Your task to perform on an android device: What's the weather going to be tomorrow? Image 0: 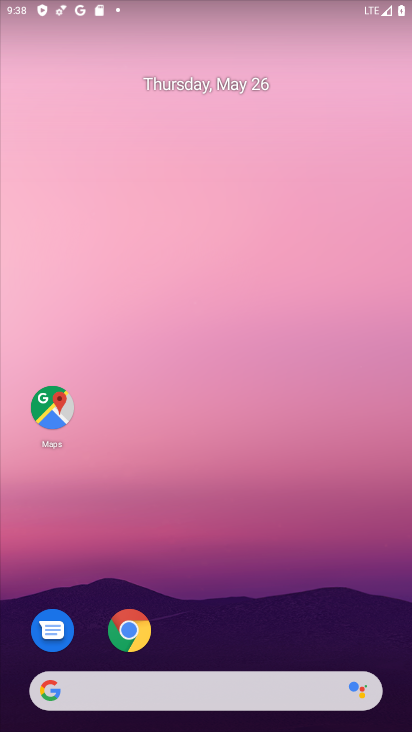
Step 0: click (221, 677)
Your task to perform on an android device: What's the weather going to be tomorrow? Image 1: 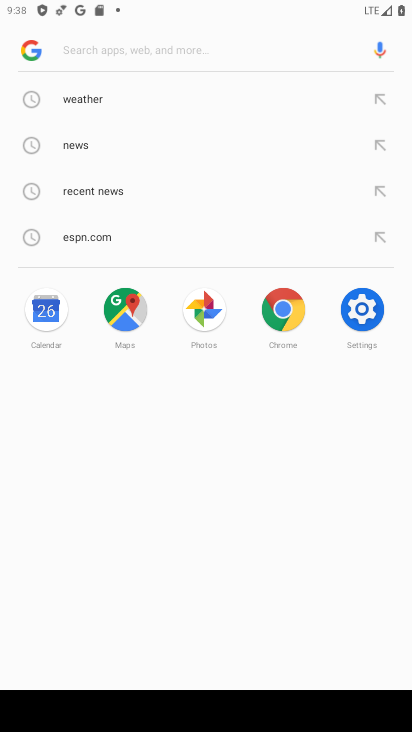
Step 1: click (75, 102)
Your task to perform on an android device: What's the weather going to be tomorrow? Image 2: 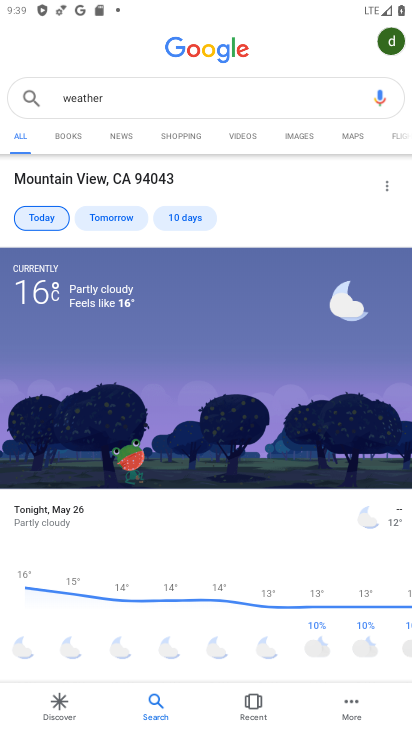
Step 2: click (100, 224)
Your task to perform on an android device: What's the weather going to be tomorrow? Image 3: 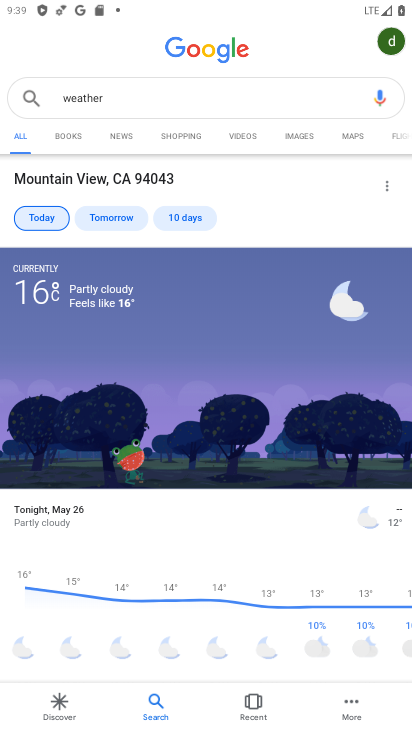
Step 3: click (100, 224)
Your task to perform on an android device: What's the weather going to be tomorrow? Image 4: 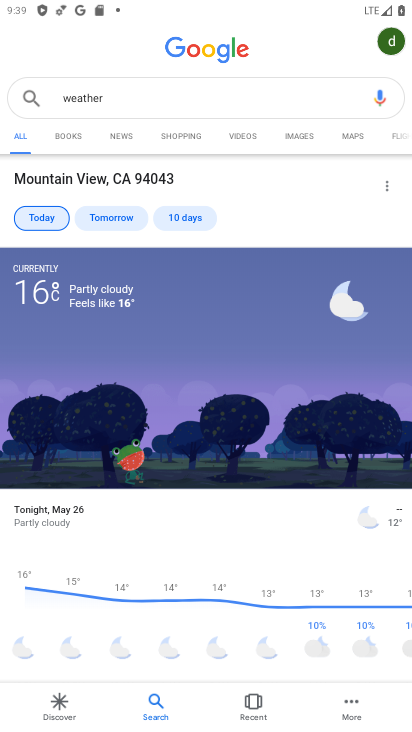
Step 4: click (100, 224)
Your task to perform on an android device: What's the weather going to be tomorrow? Image 5: 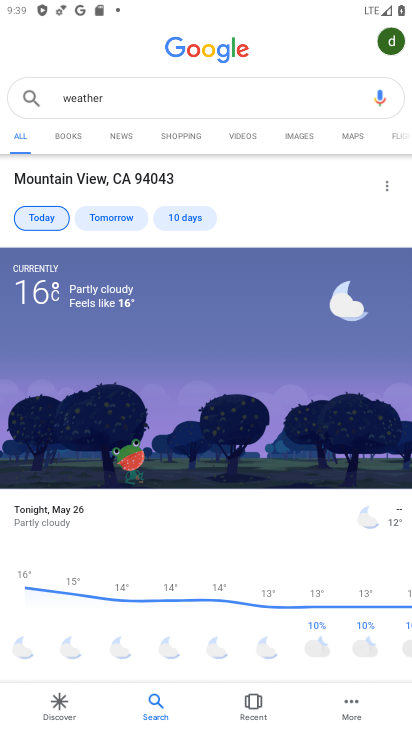
Step 5: task complete